Your task to perform on an android device: Go to network settings Image 0: 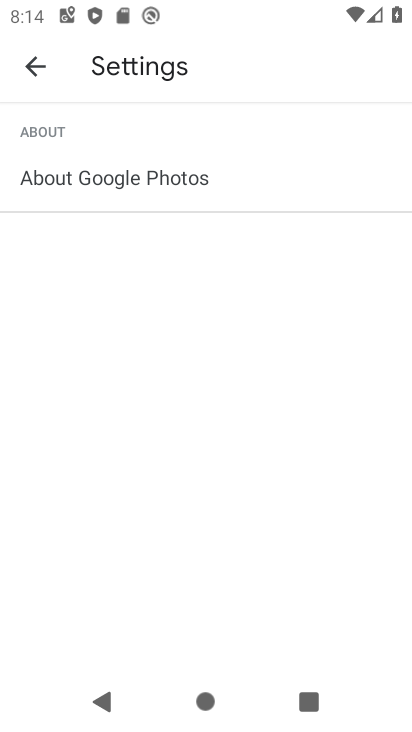
Step 0: press home button
Your task to perform on an android device: Go to network settings Image 1: 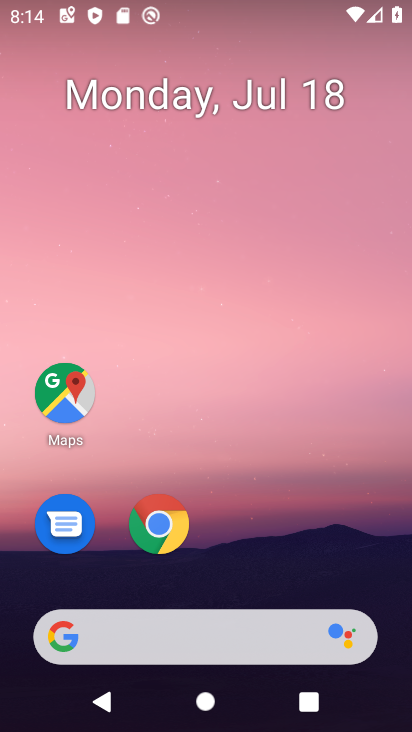
Step 1: drag from (252, 489) to (270, 63)
Your task to perform on an android device: Go to network settings Image 2: 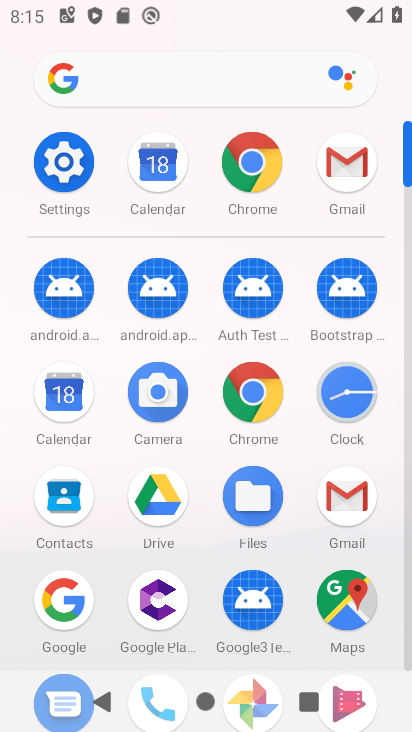
Step 2: click (83, 165)
Your task to perform on an android device: Go to network settings Image 3: 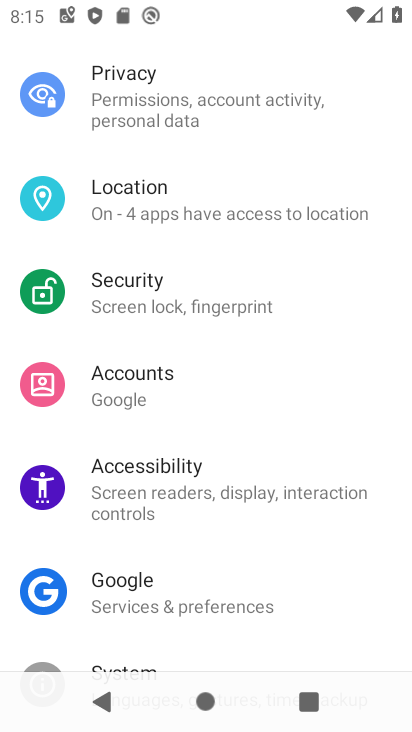
Step 3: drag from (277, 261) to (280, 533)
Your task to perform on an android device: Go to network settings Image 4: 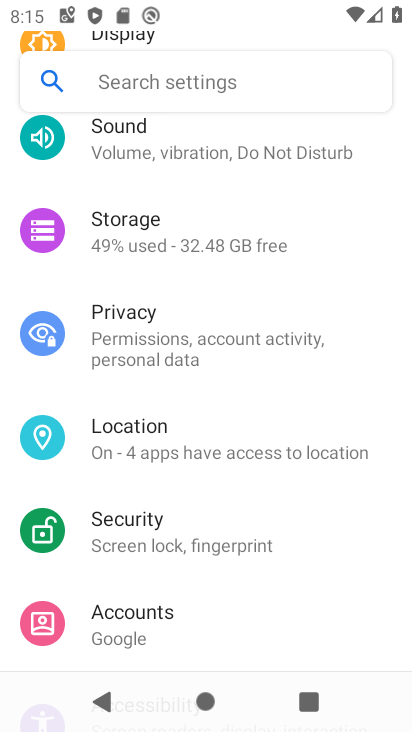
Step 4: drag from (256, 196) to (301, 529)
Your task to perform on an android device: Go to network settings Image 5: 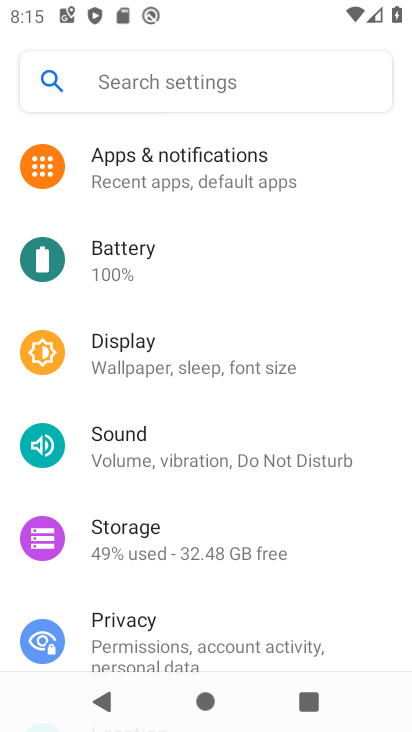
Step 5: drag from (221, 227) to (233, 600)
Your task to perform on an android device: Go to network settings Image 6: 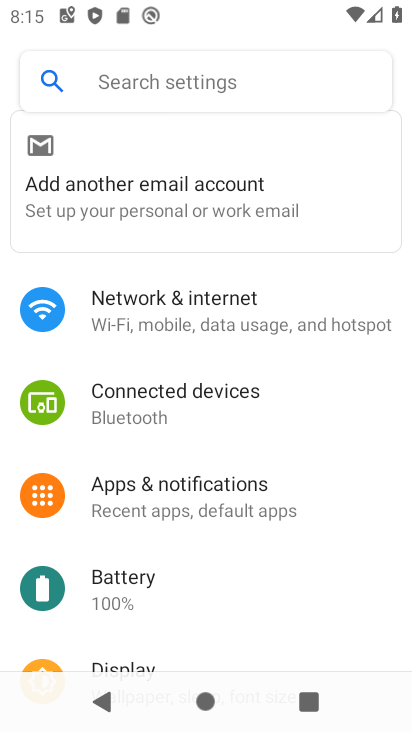
Step 6: click (217, 312)
Your task to perform on an android device: Go to network settings Image 7: 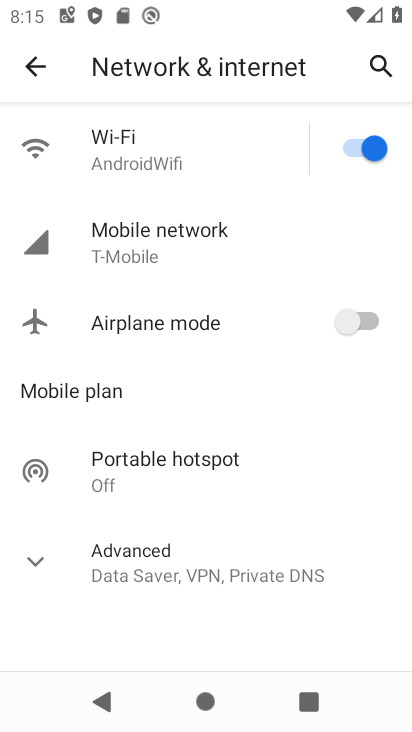
Step 7: task complete